Your task to perform on an android device: Go to display settings Image 0: 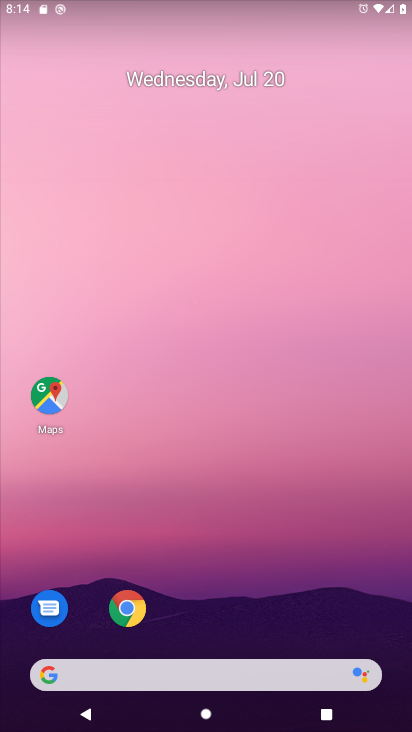
Step 0: drag from (190, 658) to (180, 254)
Your task to perform on an android device: Go to display settings Image 1: 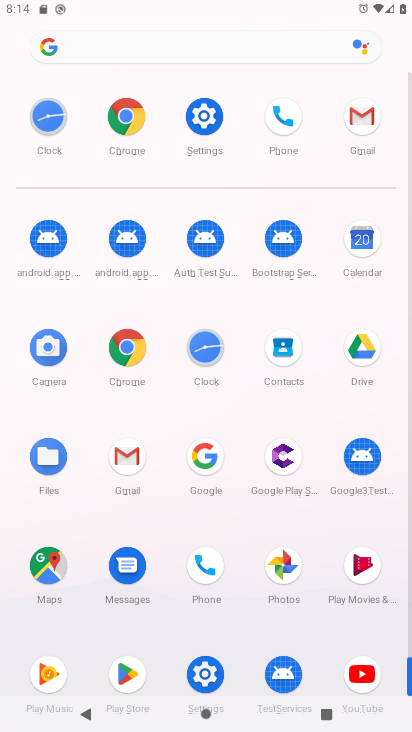
Step 1: click (199, 114)
Your task to perform on an android device: Go to display settings Image 2: 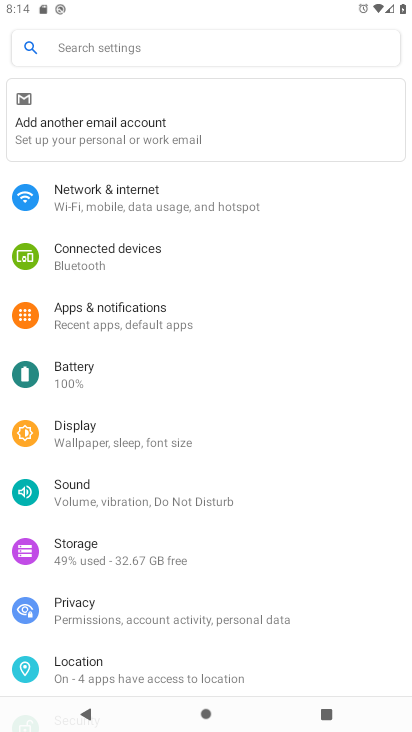
Step 2: click (125, 431)
Your task to perform on an android device: Go to display settings Image 3: 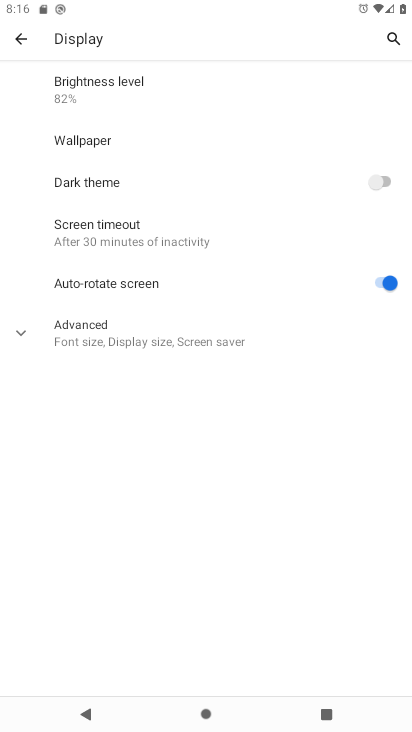
Step 3: task complete